Your task to perform on an android device: open a bookmark in the chrome app Image 0: 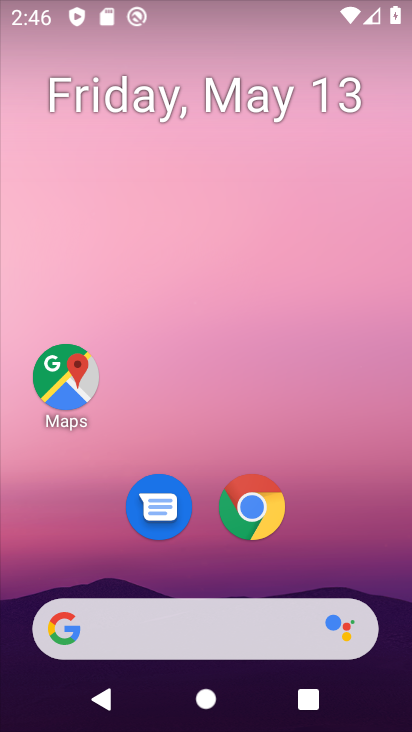
Step 0: click (274, 499)
Your task to perform on an android device: open a bookmark in the chrome app Image 1: 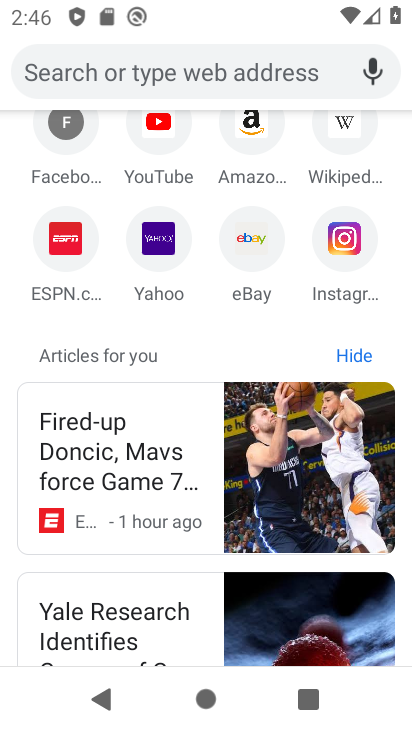
Step 1: click (125, 59)
Your task to perform on an android device: open a bookmark in the chrome app Image 2: 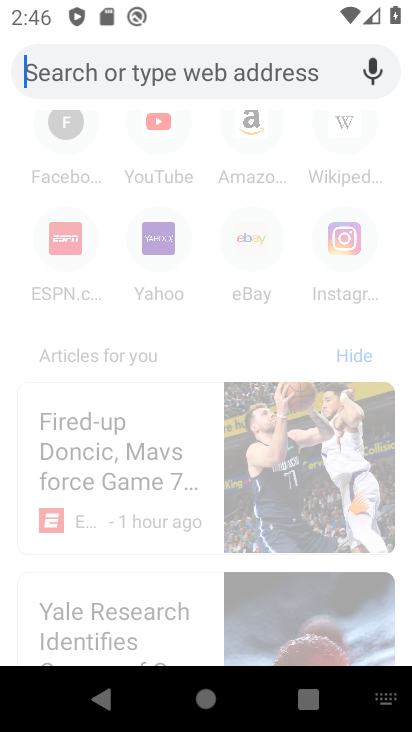
Step 2: click (372, 353)
Your task to perform on an android device: open a bookmark in the chrome app Image 3: 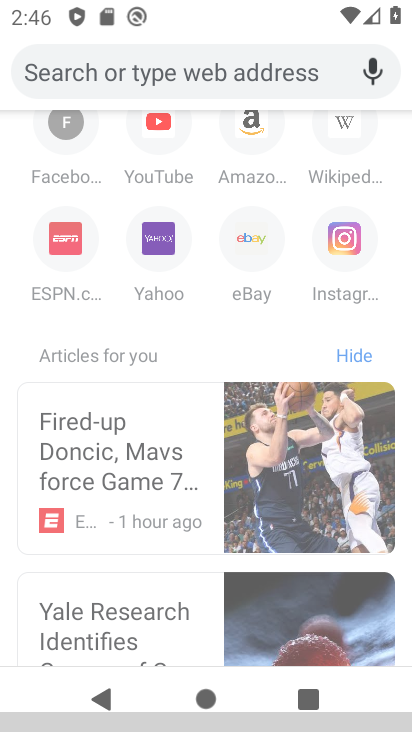
Step 3: click (384, 311)
Your task to perform on an android device: open a bookmark in the chrome app Image 4: 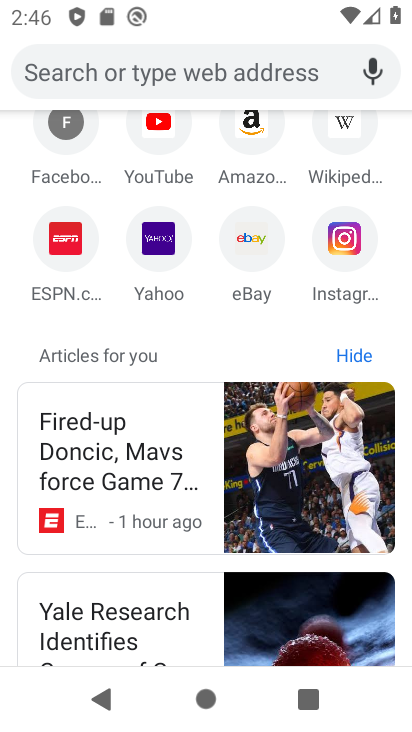
Step 4: drag from (300, 340) to (298, 695)
Your task to perform on an android device: open a bookmark in the chrome app Image 5: 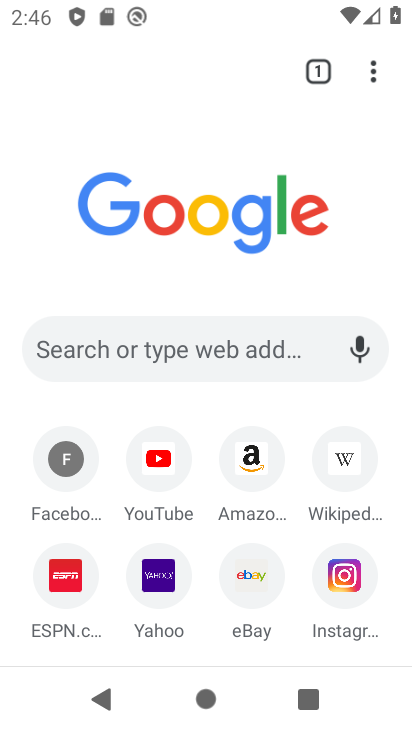
Step 5: click (370, 67)
Your task to perform on an android device: open a bookmark in the chrome app Image 6: 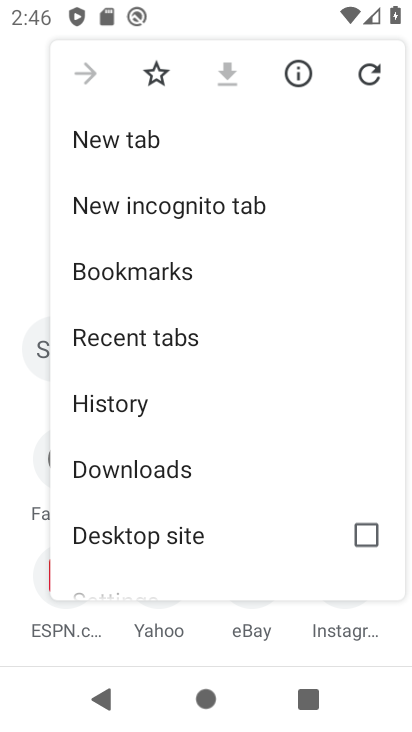
Step 6: click (137, 273)
Your task to perform on an android device: open a bookmark in the chrome app Image 7: 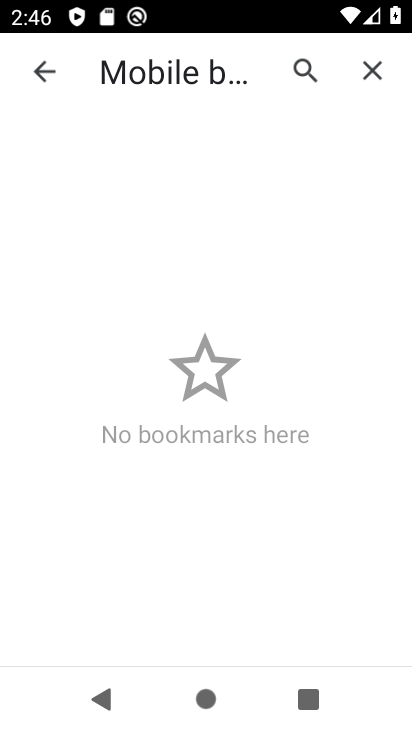
Step 7: task complete